Your task to perform on an android device: open sync settings in chrome Image 0: 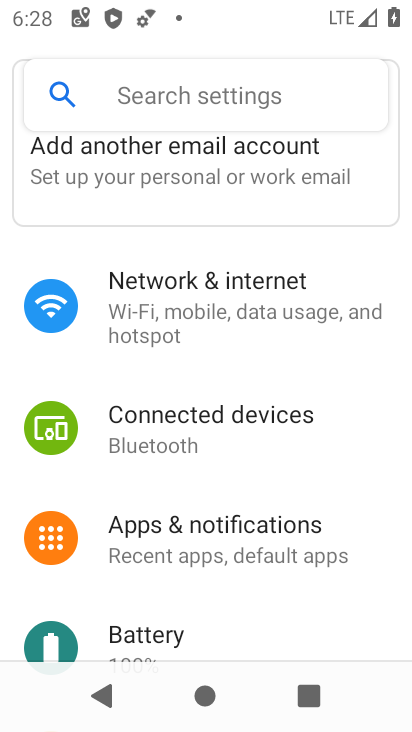
Step 0: type ""
Your task to perform on an android device: open sync settings in chrome Image 1: 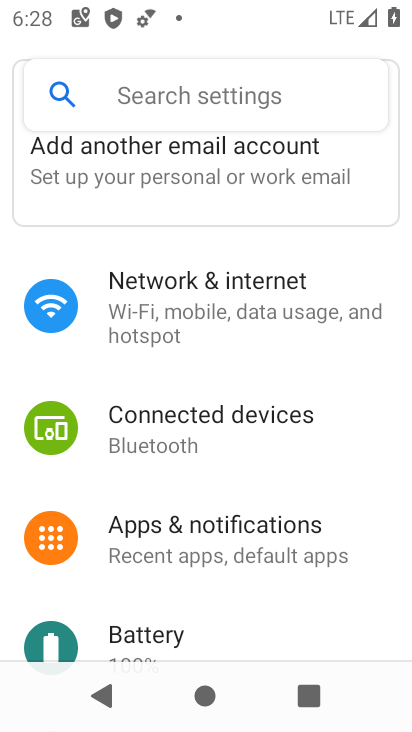
Step 1: press home button
Your task to perform on an android device: open sync settings in chrome Image 2: 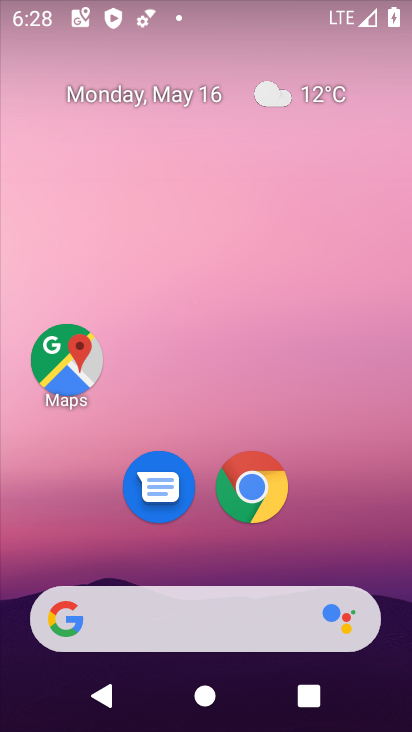
Step 2: drag from (363, 485) to (192, 50)
Your task to perform on an android device: open sync settings in chrome Image 3: 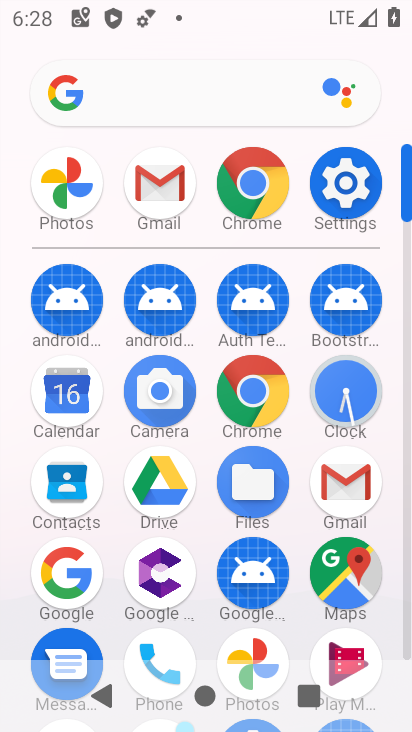
Step 3: click (354, 186)
Your task to perform on an android device: open sync settings in chrome Image 4: 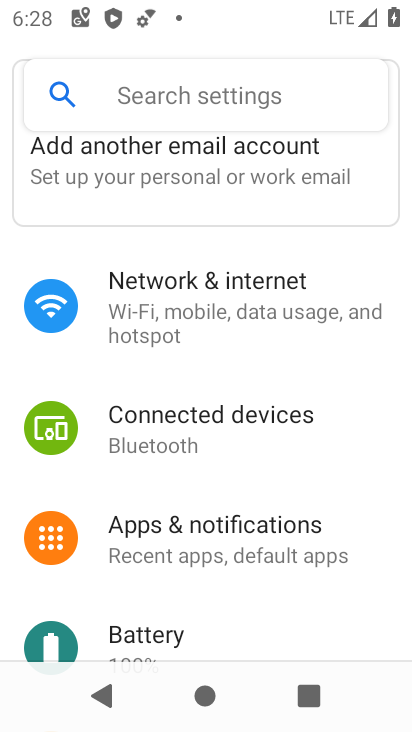
Step 4: press home button
Your task to perform on an android device: open sync settings in chrome Image 5: 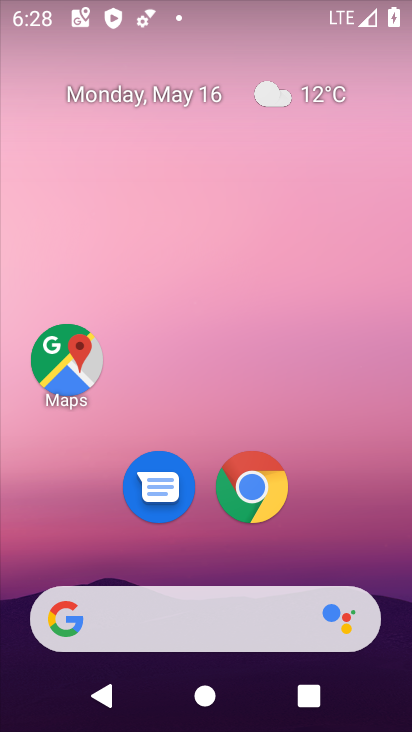
Step 5: click (267, 488)
Your task to perform on an android device: open sync settings in chrome Image 6: 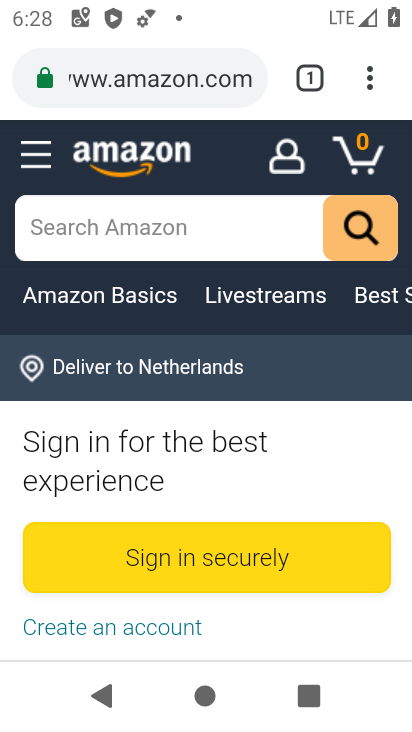
Step 6: drag from (376, 88) to (140, 555)
Your task to perform on an android device: open sync settings in chrome Image 7: 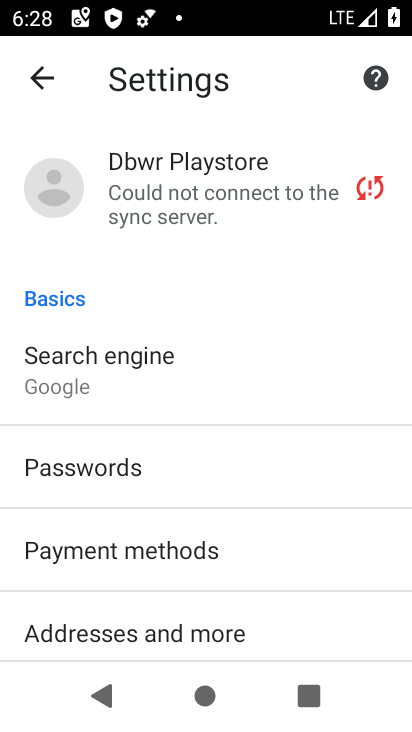
Step 7: click (154, 212)
Your task to perform on an android device: open sync settings in chrome Image 8: 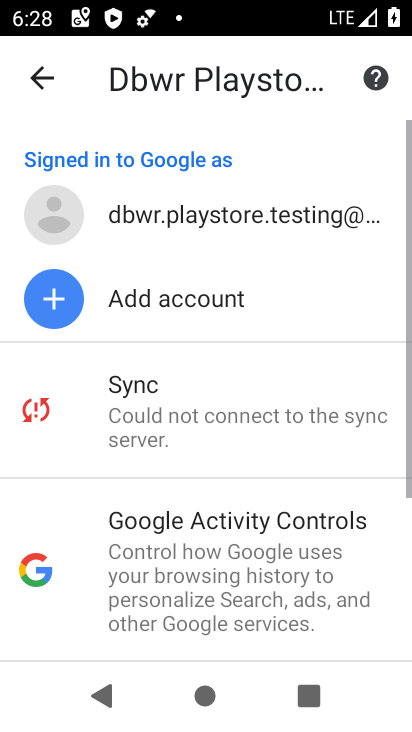
Step 8: click (159, 385)
Your task to perform on an android device: open sync settings in chrome Image 9: 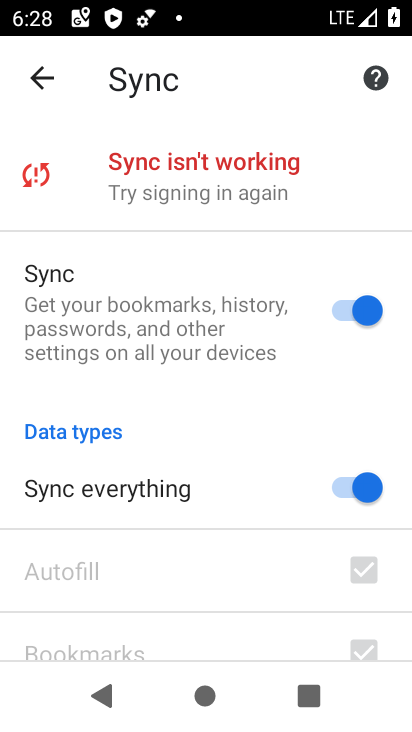
Step 9: task complete